Your task to perform on an android device: open app "PUBG MOBILE" (install if not already installed) Image 0: 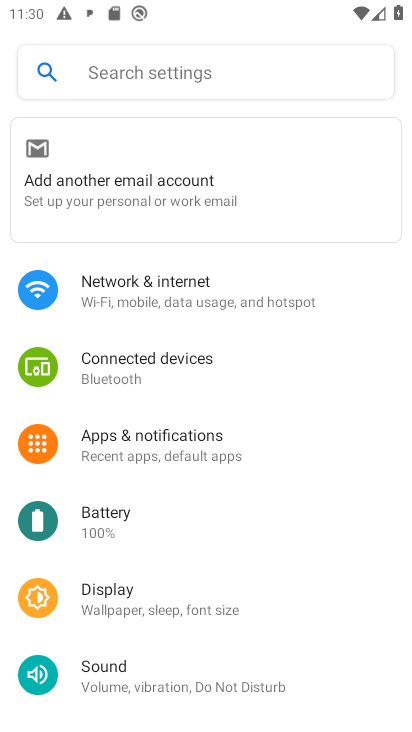
Step 0: press home button
Your task to perform on an android device: open app "PUBG MOBILE" (install if not already installed) Image 1: 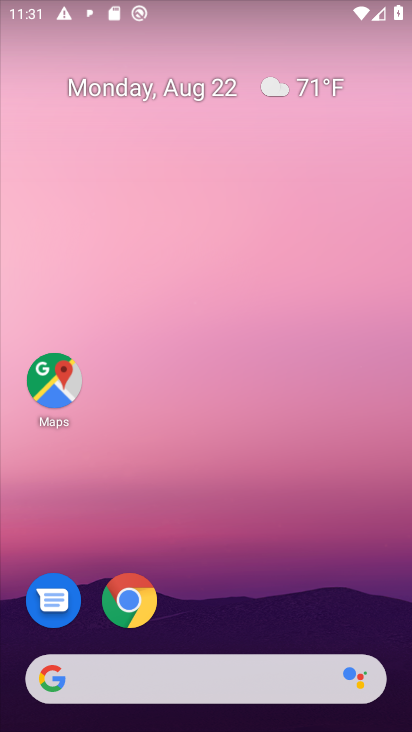
Step 1: drag from (250, 597) to (276, 178)
Your task to perform on an android device: open app "PUBG MOBILE" (install if not already installed) Image 2: 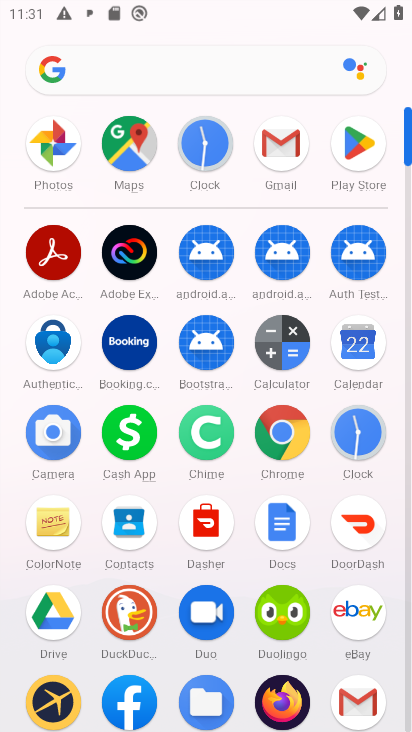
Step 2: click (345, 148)
Your task to perform on an android device: open app "PUBG MOBILE" (install if not already installed) Image 3: 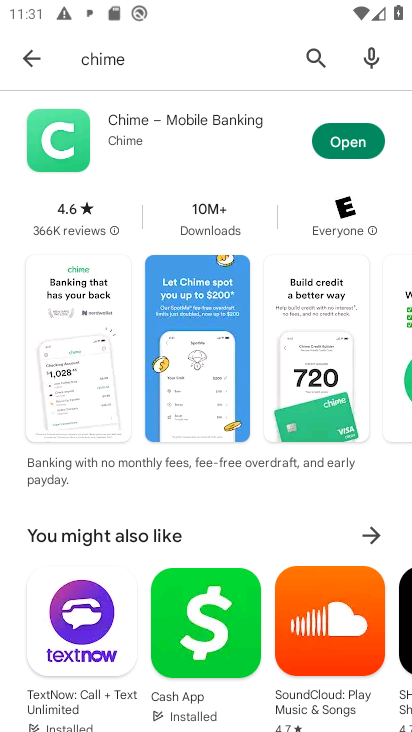
Step 3: click (313, 57)
Your task to perform on an android device: open app "PUBG MOBILE" (install if not already installed) Image 4: 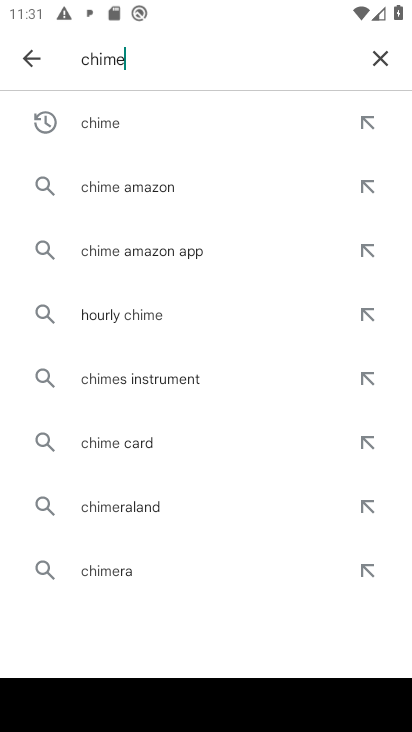
Step 4: click (371, 65)
Your task to perform on an android device: open app "PUBG MOBILE" (install if not already installed) Image 5: 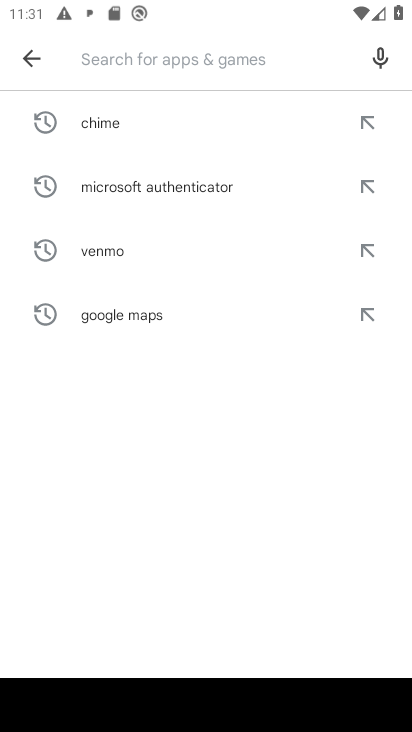
Step 5: type "PUBG MOBIL"
Your task to perform on an android device: open app "PUBG MOBILE" (install if not already installed) Image 6: 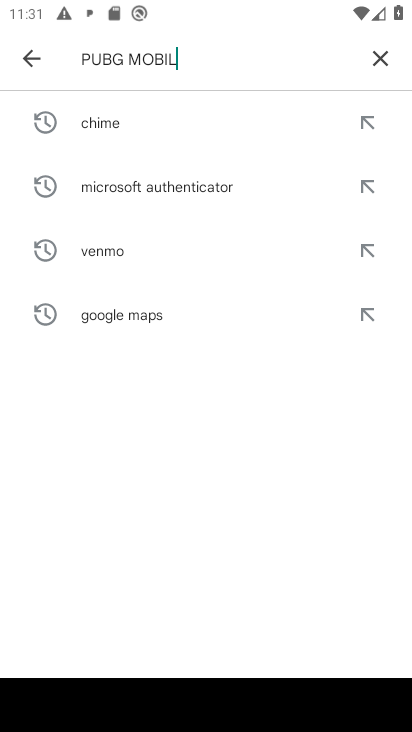
Step 6: type ""
Your task to perform on an android device: open app "PUBG MOBILE" (install if not already installed) Image 7: 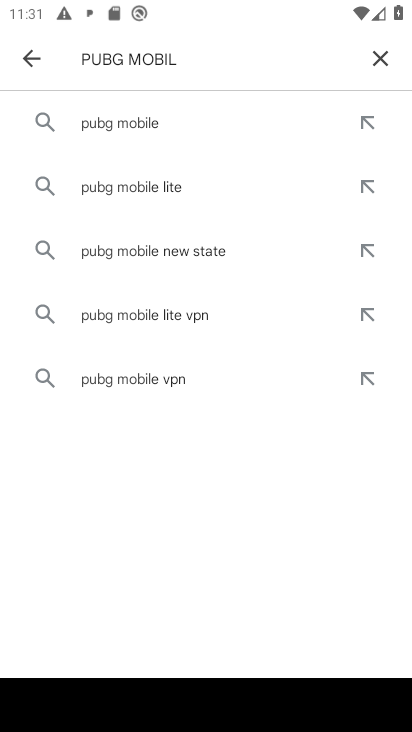
Step 7: task complete